Your task to perform on an android device: Go to sound settings Image 0: 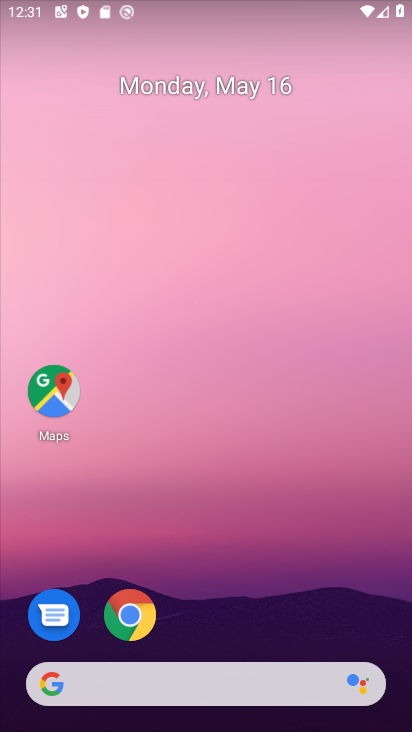
Step 0: drag from (195, 627) to (110, 95)
Your task to perform on an android device: Go to sound settings Image 1: 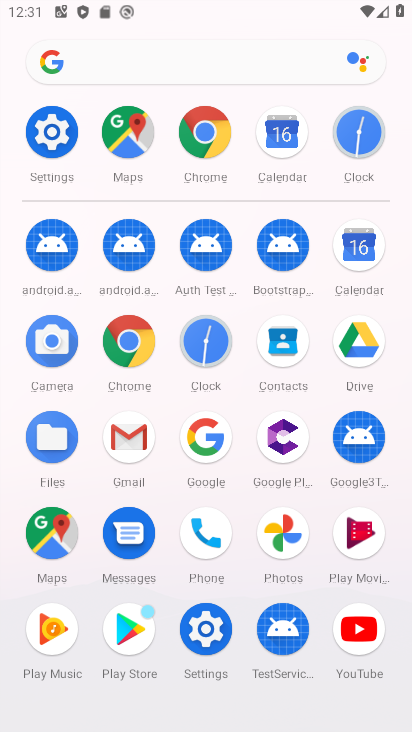
Step 1: click (34, 133)
Your task to perform on an android device: Go to sound settings Image 2: 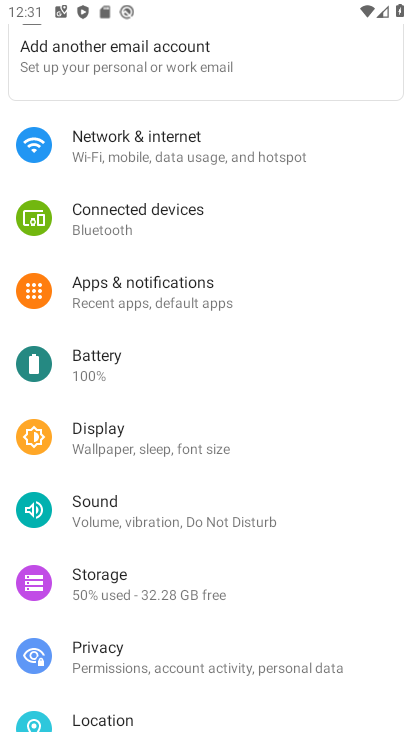
Step 2: click (163, 516)
Your task to perform on an android device: Go to sound settings Image 3: 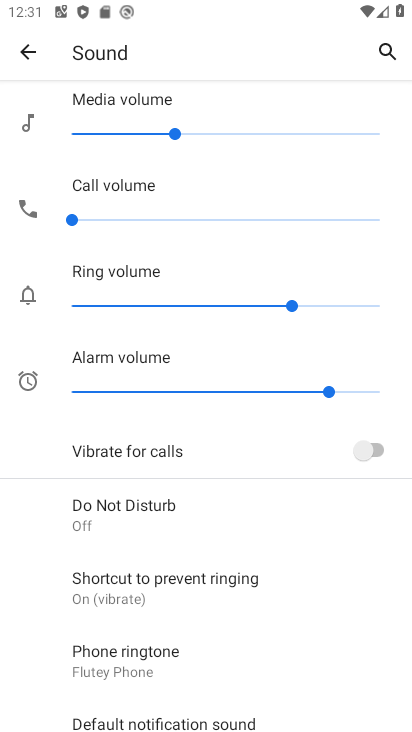
Step 3: task complete